Your task to perform on an android device: empty trash in google photos Image 0: 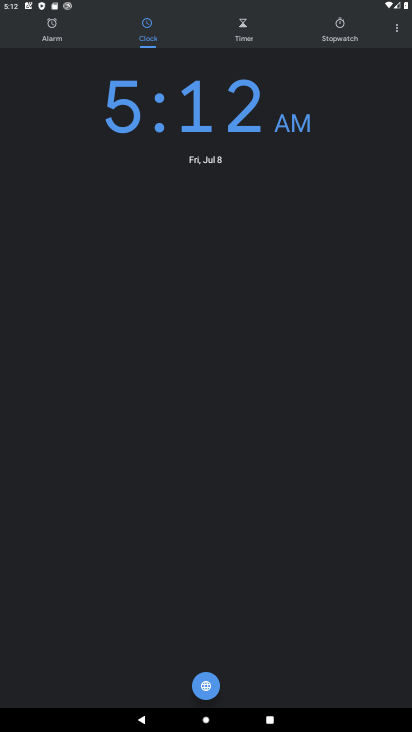
Step 0: press home button
Your task to perform on an android device: empty trash in google photos Image 1: 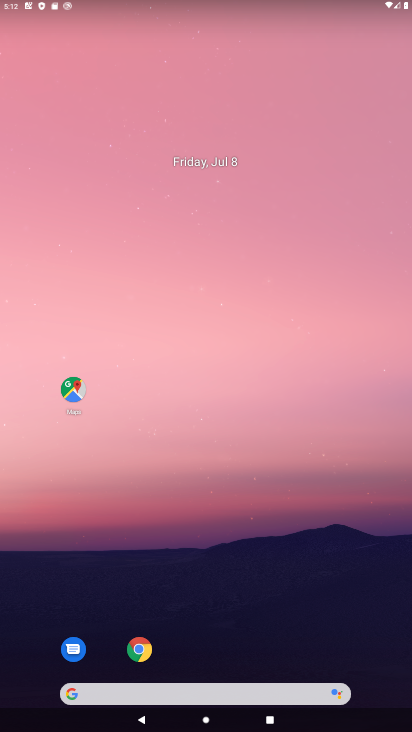
Step 1: drag from (304, 599) to (316, 105)
Your task to perform on an android device: empty trash in google photos Image 2: 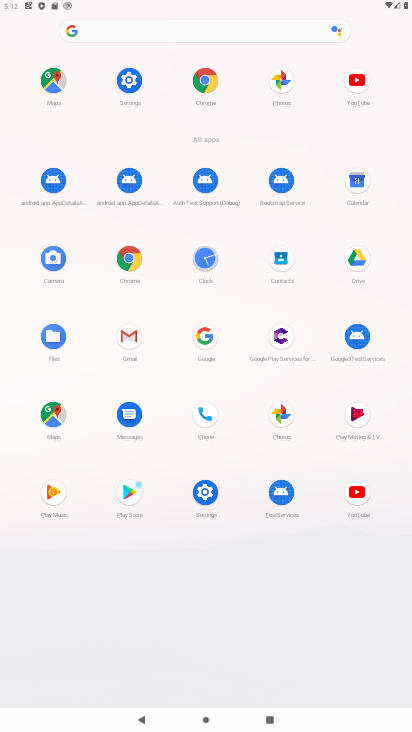
Step 2: click (278, 415)
Your task to perform on an android device: empty trash in google photos Image 3: 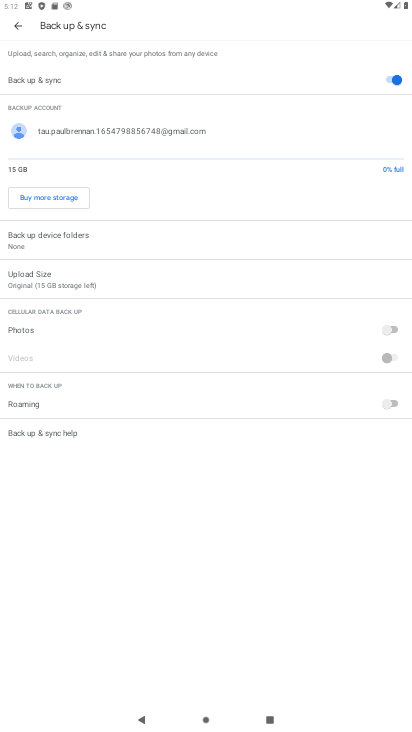
Step 3: click (15, 25)
Your task to perform on an android device: empty trash in google photos Image 4: 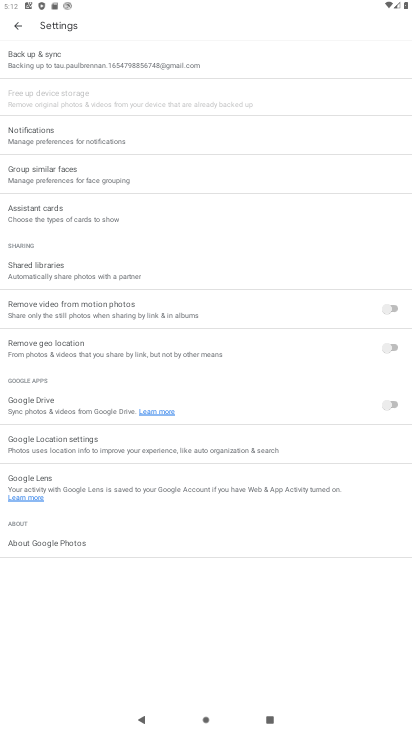
Step 4: click (15, 25)
Your task to perform on an android device: empty trash in google photos Image 5: 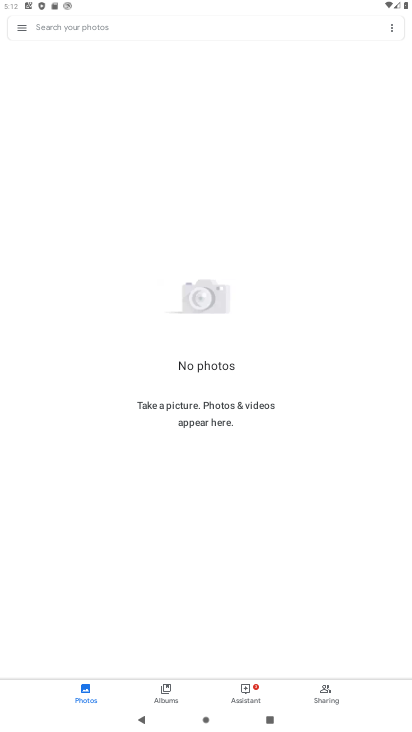
Step 5: click (21, 28)
Your task to perform on an android device: empty trash in google photos Image 6: 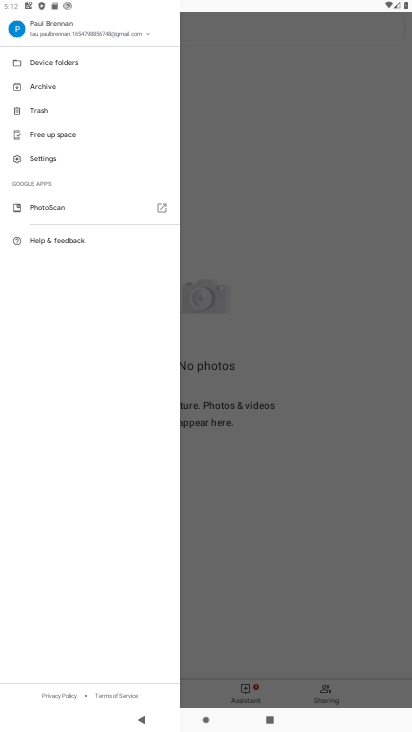
Step 6: click (40, 111)
Your task to perform on an android device: empty trash in google photos Image 7: 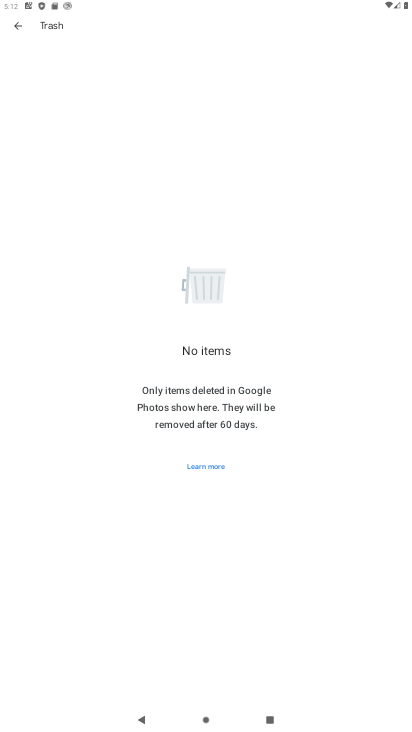
Step 7: task complete